Your task to perform on an android device: When is my next appointment? Image 0: 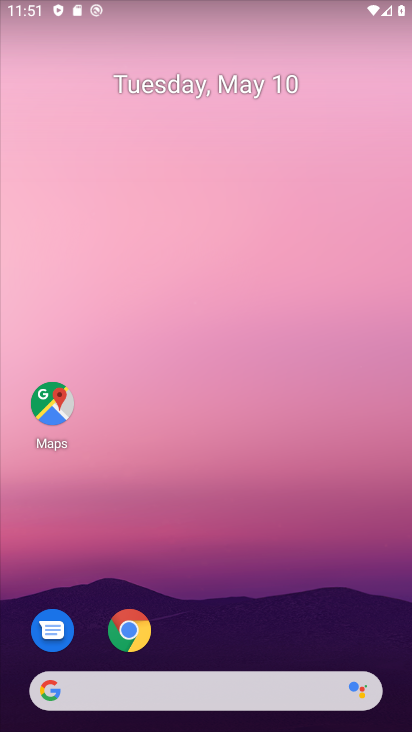
Step 0: drag from (167, 666) to (85, 8)
Your task to perform on an android device: When is my next appointment? Image 1: 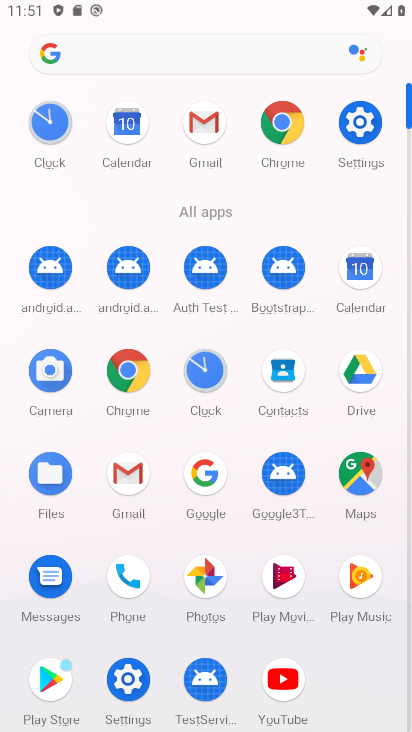
Step 1: click (374, 266)
Your task to perform on an android device: When is my next appointment? Image 2: 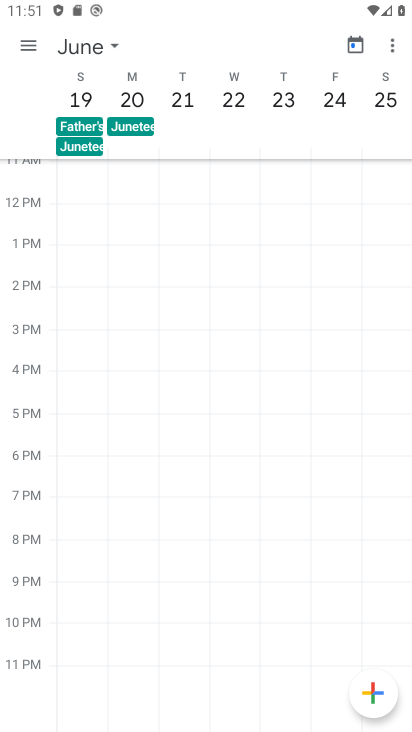
Step 2: click (339, 39)
Your task to perform on an android device: When is my next appointment? Image 3: 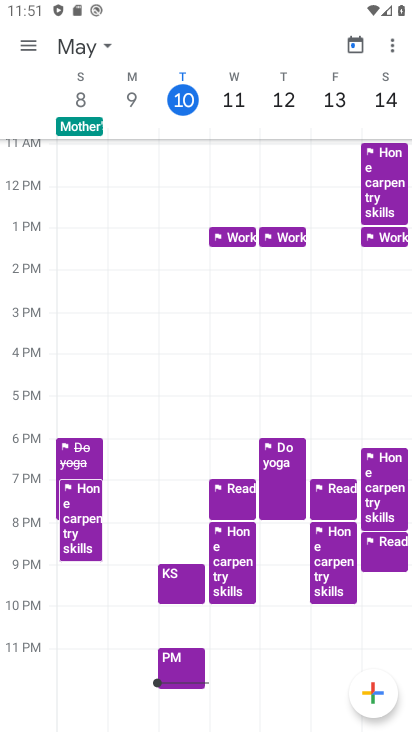
Step 3: task complete